Your task to perform on an android device: open wifi settings Image 0: 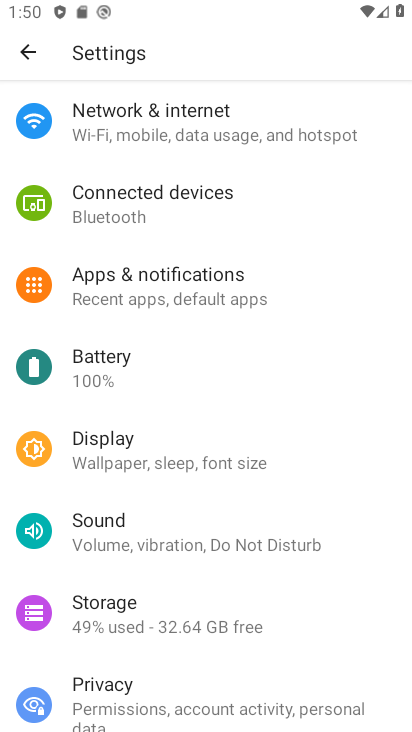
Step 0: click (288, 131)
Your task to perform on an android device: open wifi settings Image 1: 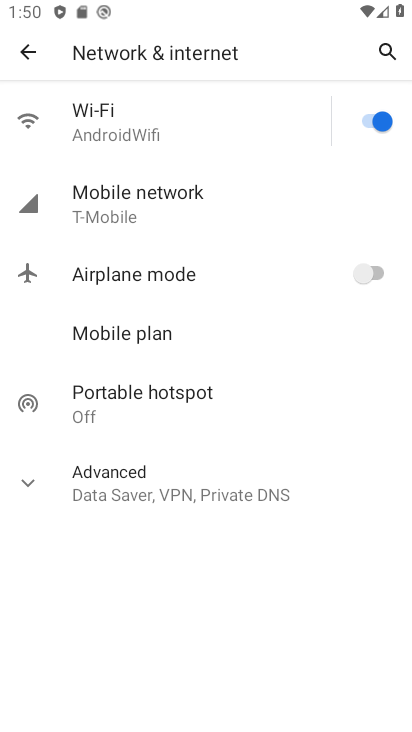
Step 1: click (246, 126)
Your task to perform on an android device: open wifi settings Image 2: 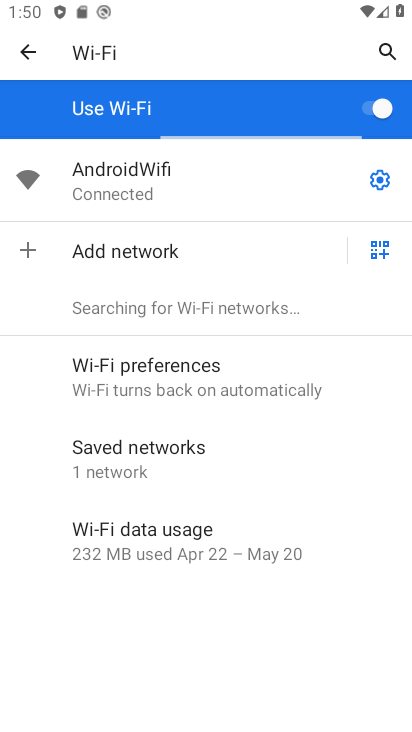
Step 2: task complete